Your task to perform on an android device: Find coffee shops on Maps Image 0: 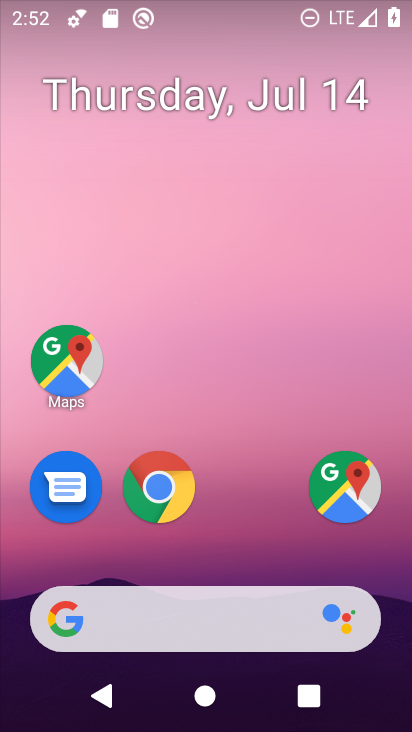
Step 0: drag from (219, 517) to (204, 140)
Your task to perform on an android device: Find coffee shops on Maps Image 1: 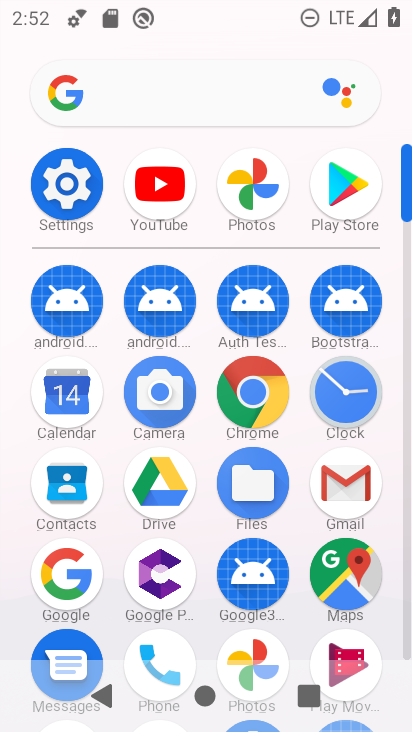
Step 1: click (342, 575)
Your task to perform on an android device: Find coffee shops on Maps Image 2: 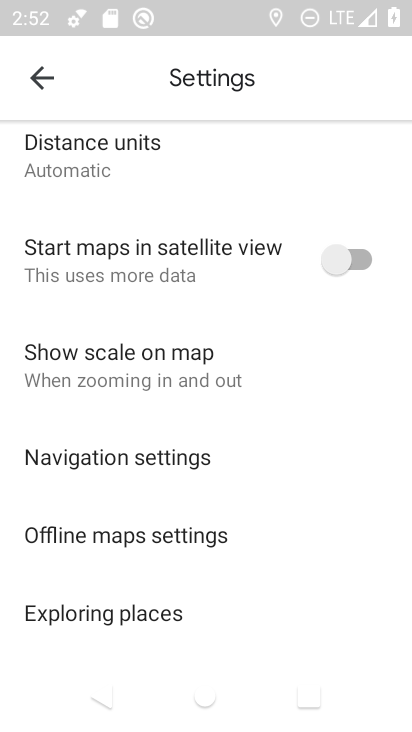
Step 2: press back button
Your task to perform on an android device: Find coffee shops on Maps Image 3: 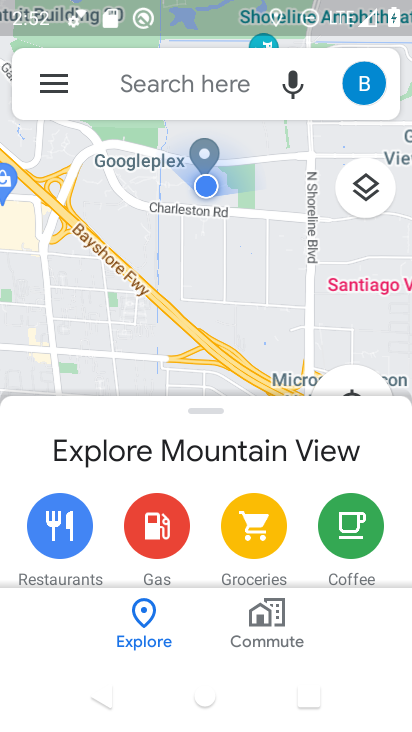
Step 3: click (205, 98)
Your task to perform on an android device: Find coffee shops on Maps Image 4: 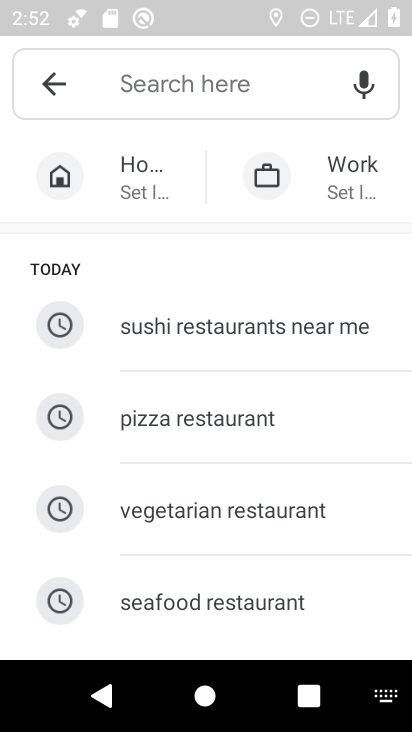
Step 4: type "coffee shops"
Your task to perform on an android device: Find coffee shops on Maps Image 5: 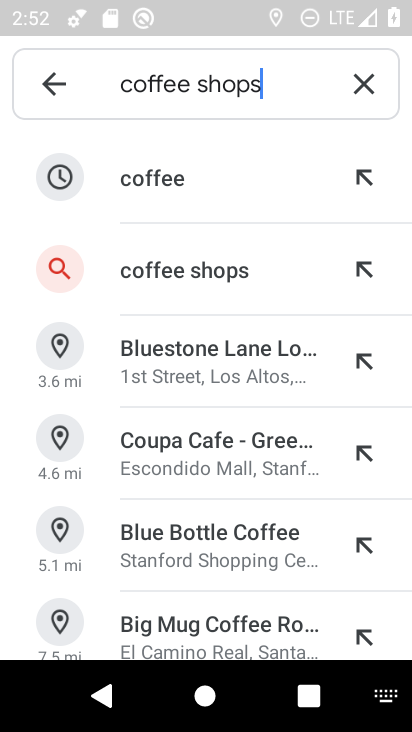
Step 5: click (295, 283)
Your task to perform on an android device: Find coffee shops on Maps Image 6: 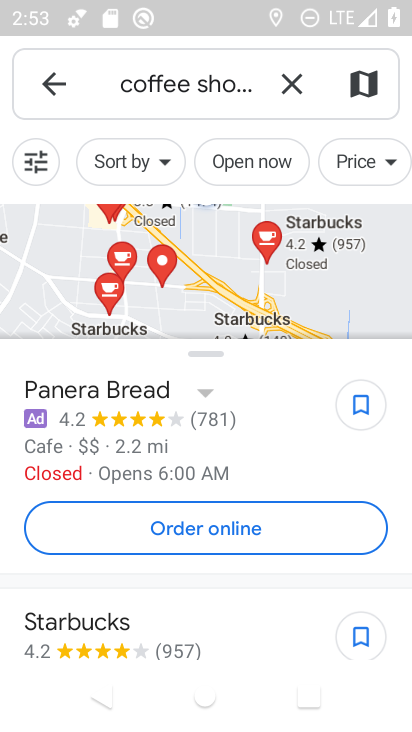
Step 6: task complete